Your task to perform on an android device: Search for Italian restaurants on Maps Image 0: 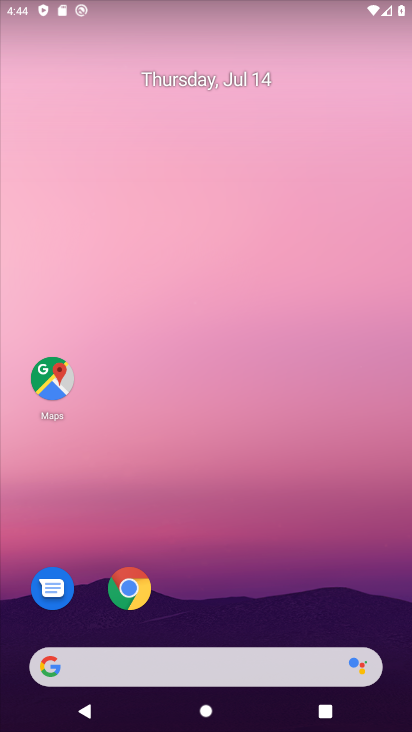
Step 0: drag from (225, 657) to (223, 300)
Your task to perform on an android device: Search for Italian restaurants on Maps Image 1: 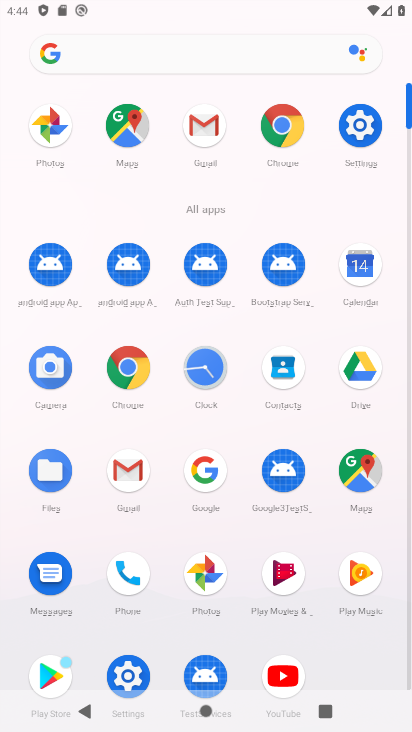
Step 1: click (344, 471)
Your task to perform on an android device: Search for Italian restaurants on Maps Image 2: 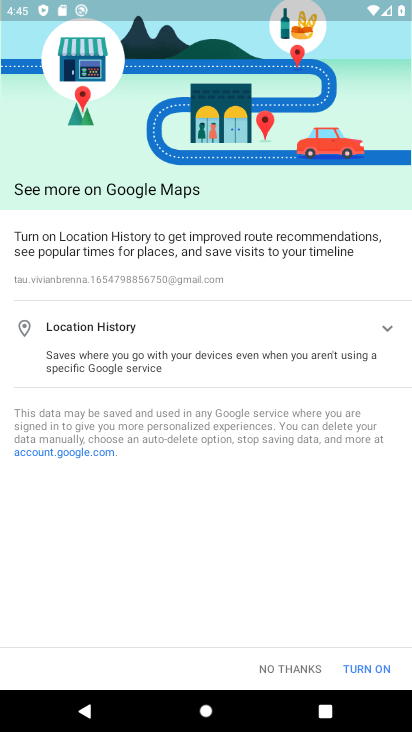
Step 2: click (348, 665)
Your task to perform on an android device: Search for Italian restaurants on Maps Image 3: 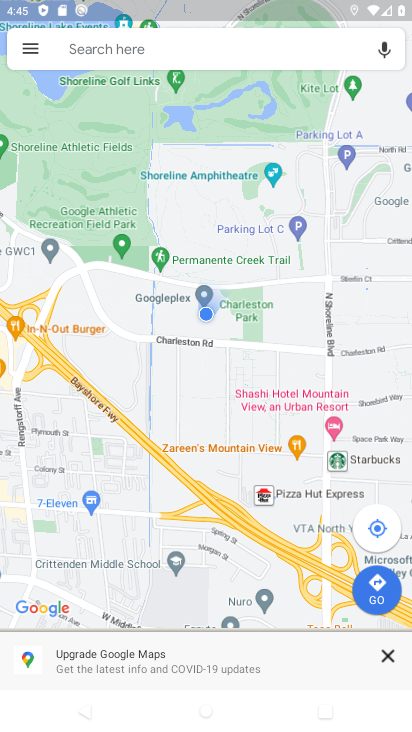
Step 3: click (87, 47)
Your task to perform on an android device: Search for Italian restaurants on Maps Image 4: 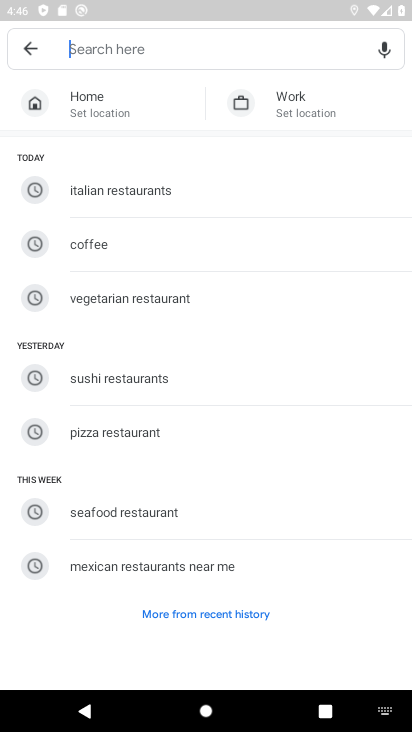
Step 4: click (179, 615)
Your task to perform on an android device: Search for Italian restaurants on Maps Image 5: 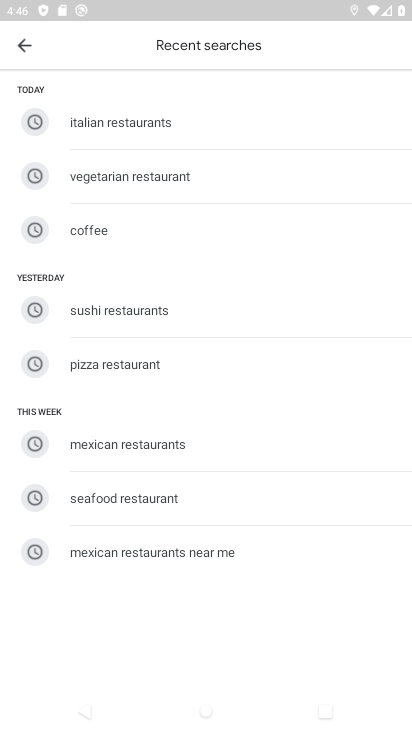
Step 5: click (92, 116)
Your task to perform on an android device: Search for Italian restaurants on Maps Image 6: 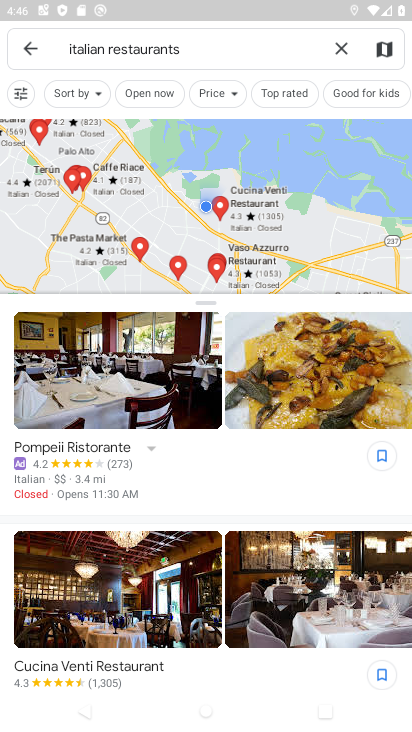
Step 6: task complete